Your task to perform on an android device: check android version Image 0: 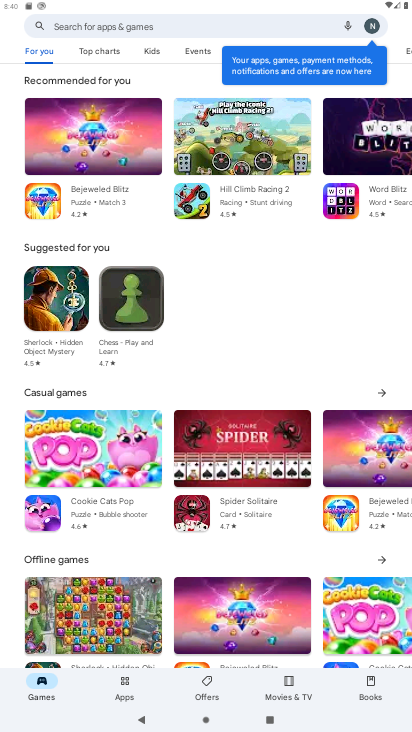
Step 0: press home button
Your task to perform on an android device: check android version Image 1: 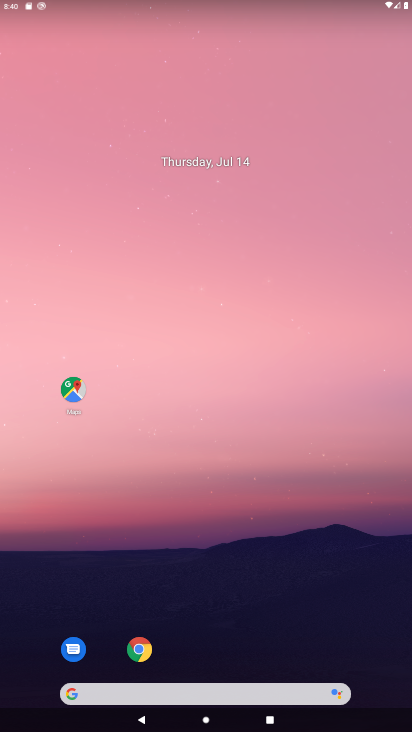
Step 1: drag from (226, 630) to (164, 23)
Your task to perform on an android device: check android version Image 2: 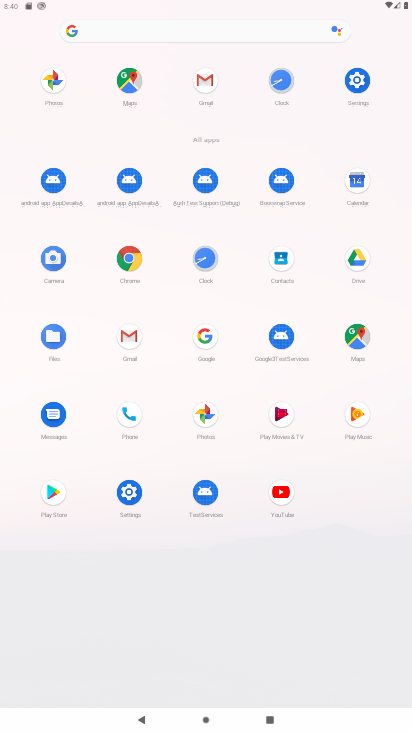
Step 2: click (133, 503)
Your task to perform on an android device: check android version Image 3: 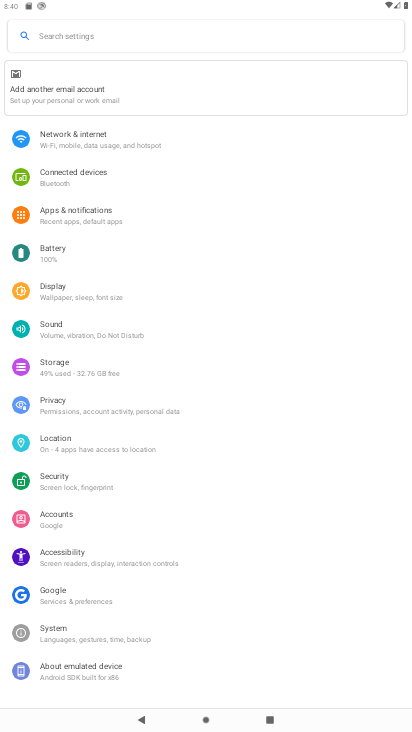
Step 3: click (104, 672)
Your task to perform on an android device: check android version Image 4: 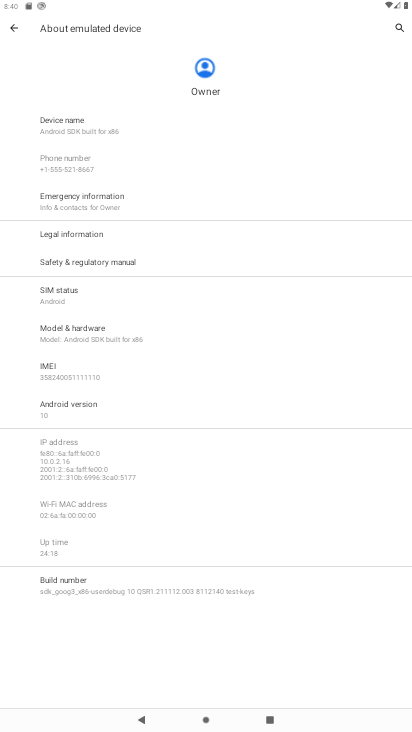
Step 4: click (77, 415)
Your task to perform on an android device: check android version Image 5: 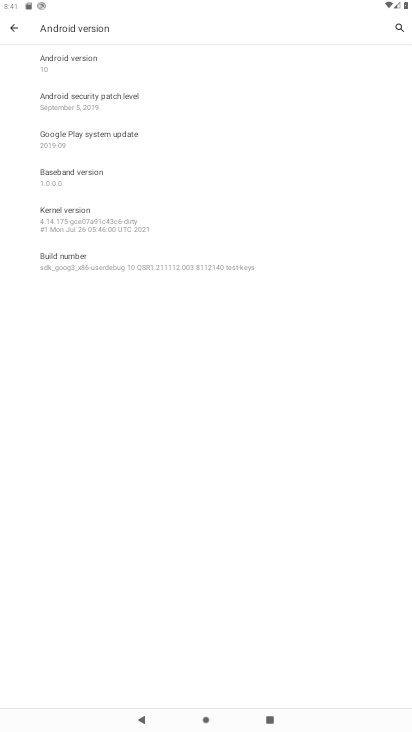
Step 5: task complete